Your task to perform on an android device: Go to Android settings Image 0: 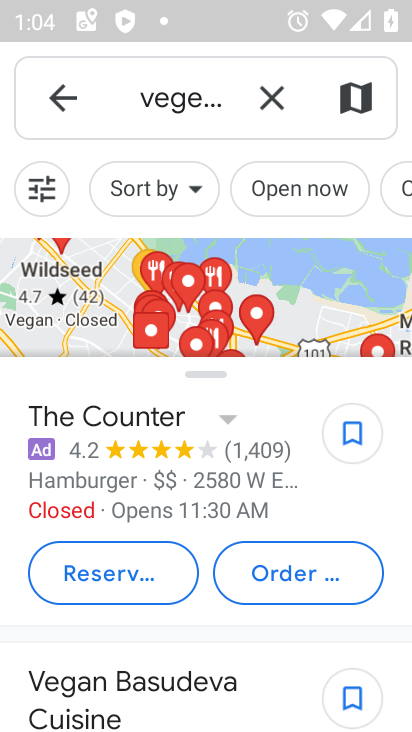
Step 0: press home button
Your task to perform on an android device: Go to Android settings Image 1: 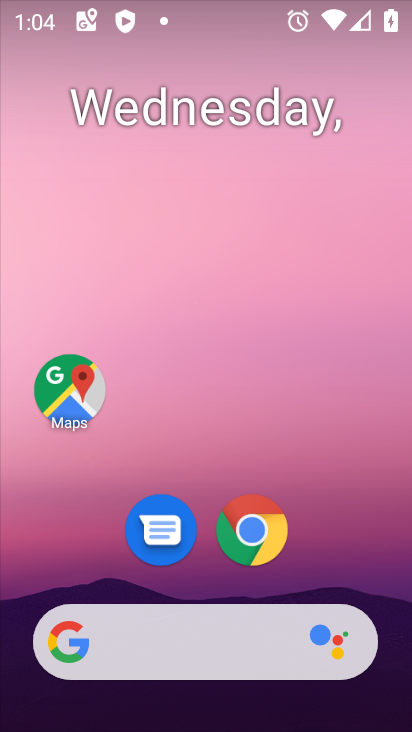
Step 1: drag from (200, 577) to (230, 170)
Your task to perform on an android device: Go to Android settings Image 2: 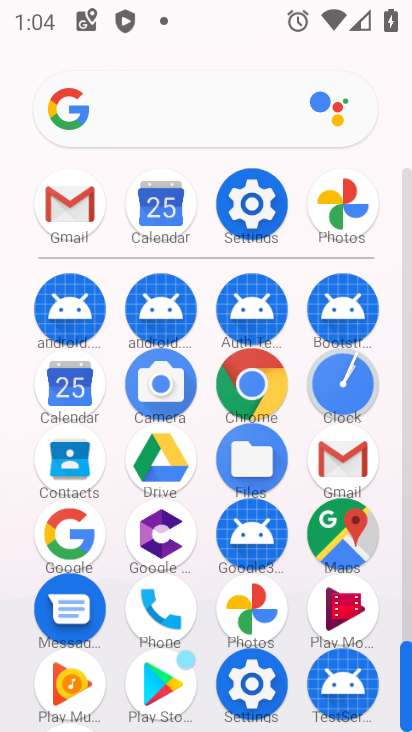
Step 2: click (257, 204)
Your task to perform on an android device: Go to Android settings Image 3: 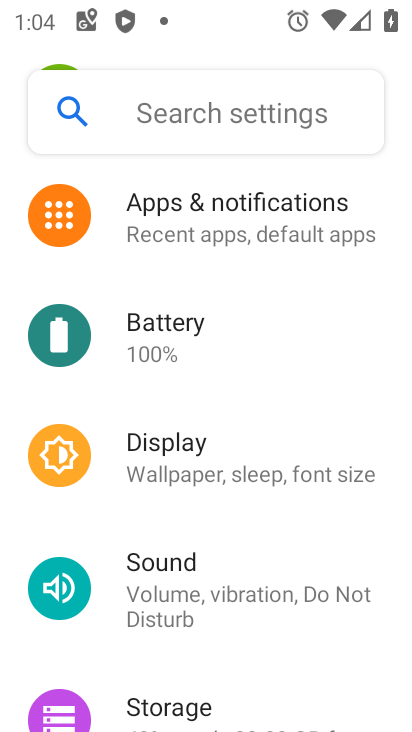
Step 3: drag from (241, 644) to (308, 107)
Your task to perform on an android device: Go to Android settings Image 4: 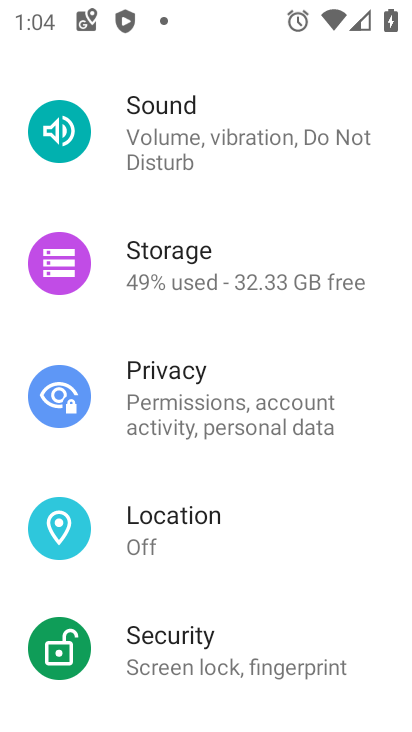
Step 4: drag from (291, 571) to (290, 274)
Your task to perform on an android device: Go to Android settings Image 5: 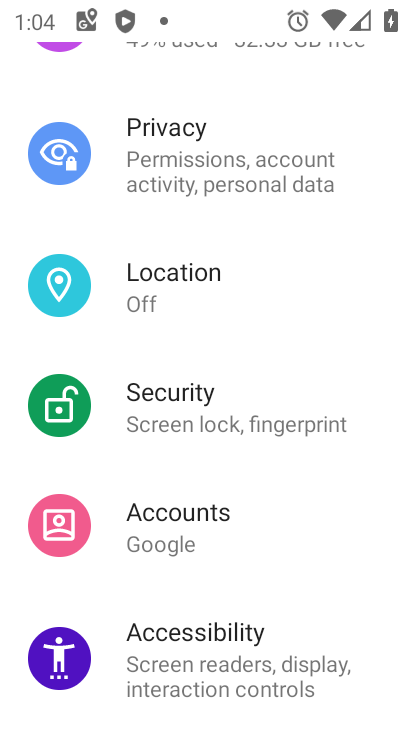
Step 5: drag from (191, 704) to (231, 333)
Your task to perform on an android device: Go to Android settings Image 6: 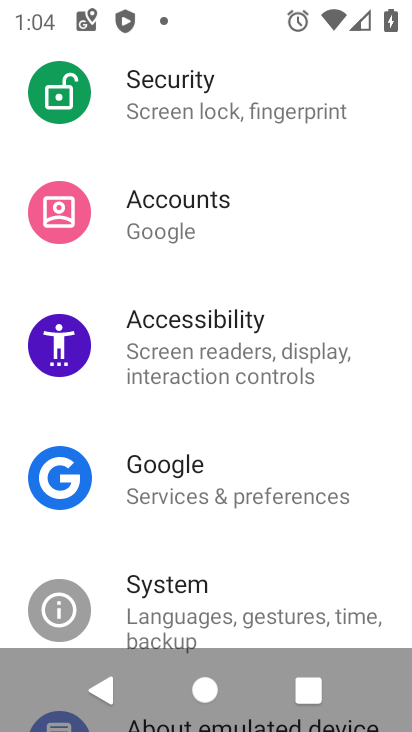
Step 6: drag from (192, 559) to (247, 318)
Your task to perform on an android device: Go to Android settings Image 7: 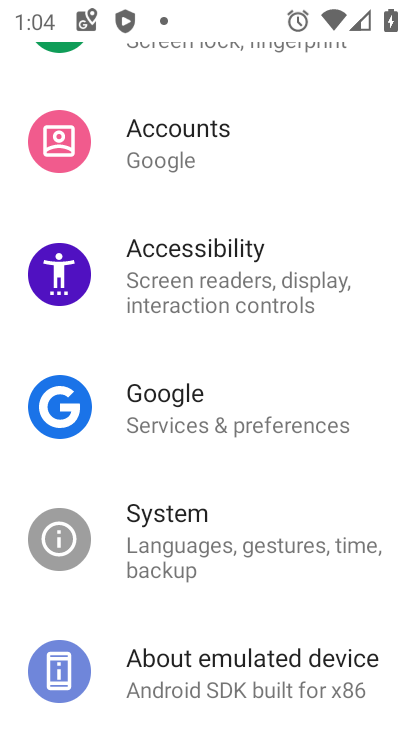
Step 7: click (228, 683)
Your task to perform on an android device: Go to Android settings Image 8: 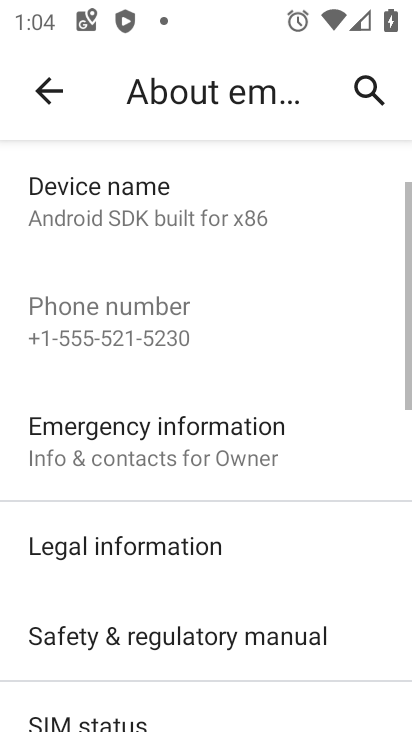
Step 8: task complete